Your task to perform on an android device: Find coffee shops on Maps Image 0: 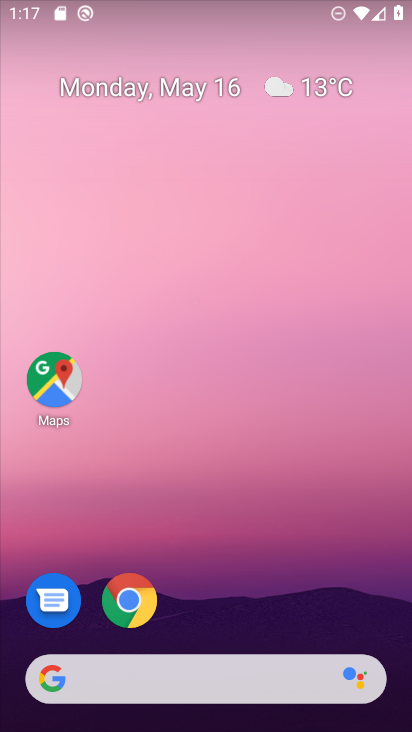
Step 0: press home button
Your task to perform on an android device: Find coffee shops on Maps Image 1: 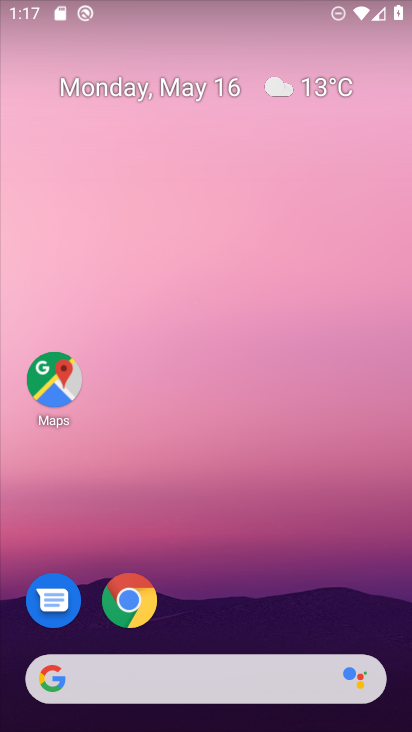
Step 1: drag from (211, 633) to (252, 72)
Your task to perform on an android device: Find coffee shops on Maps Image 2: 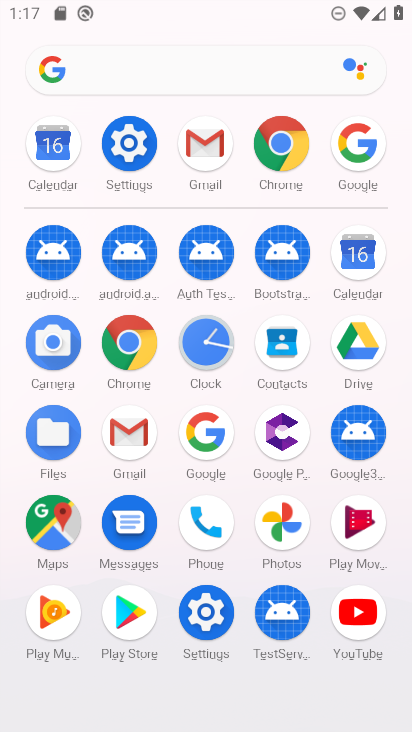
Step 2: click (51, 518)
Your task to perform on an android device: Find coffee shops on Maps Image 3: 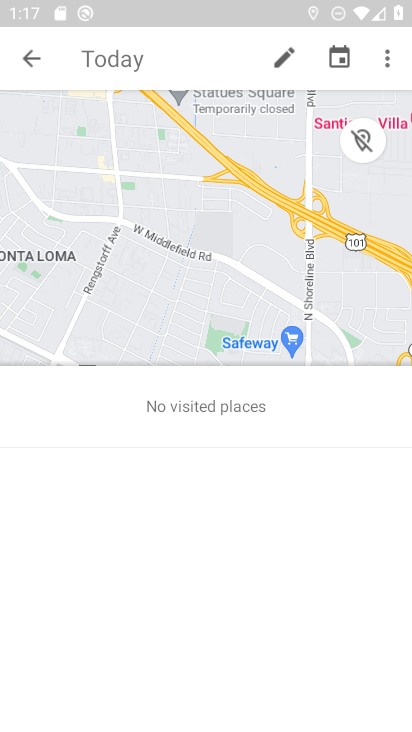
Step 3: click (33, 58)
Your task to perform on an android device: Find coffee shops on Maps Image 4: 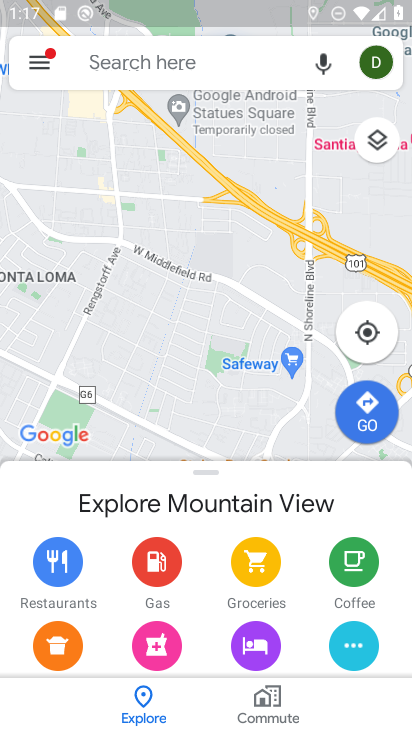
Step 4: click (119, 60)
Your task to perform on an android device: Find coffee shops on Maps Image 5: 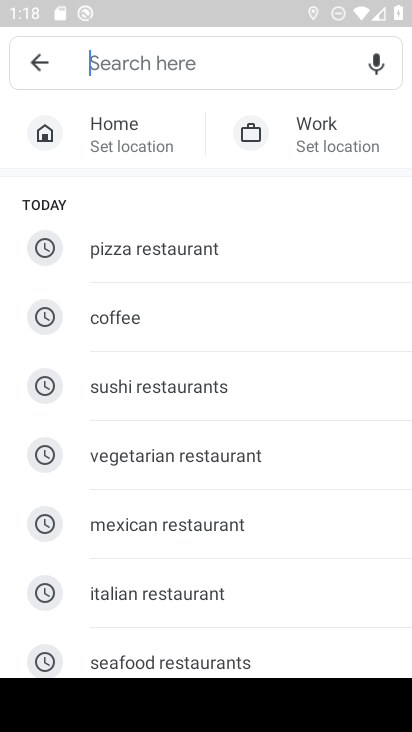
Step 5: click (147, 316)
Your task to perform on an android device: Find coffee shops on Maps Image 6: 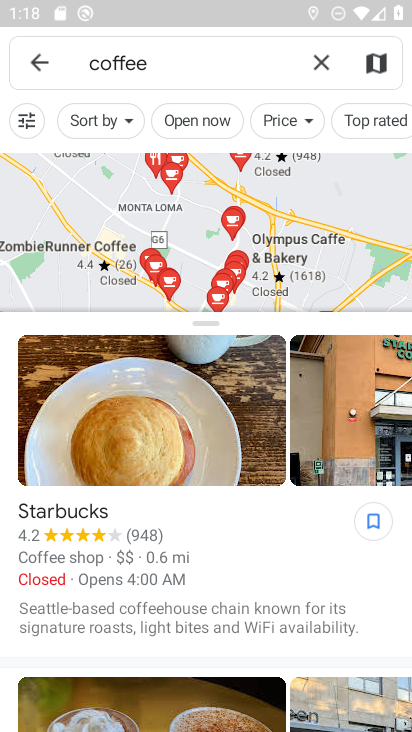
Step 6: task complete